Your task to perform on an android device: turn on location history Image 0: 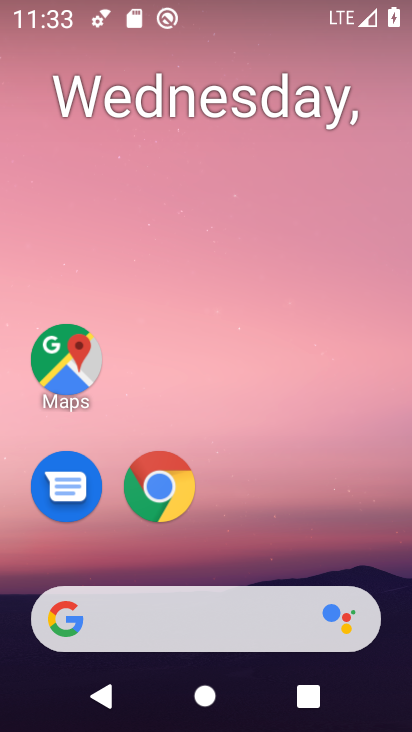
Step 0: drag from (346, 531) to (342, 136)
Your task to perform on an android device: turn on location history Image 1: 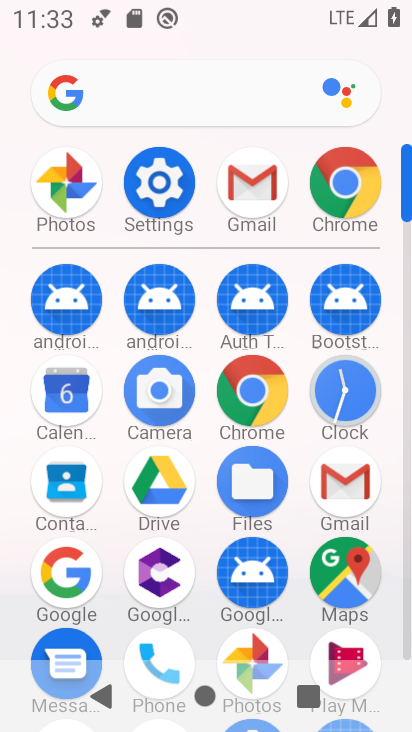
Step 1: click (173, 199)
Your task to perform on an android device: turn on location history Image 2: 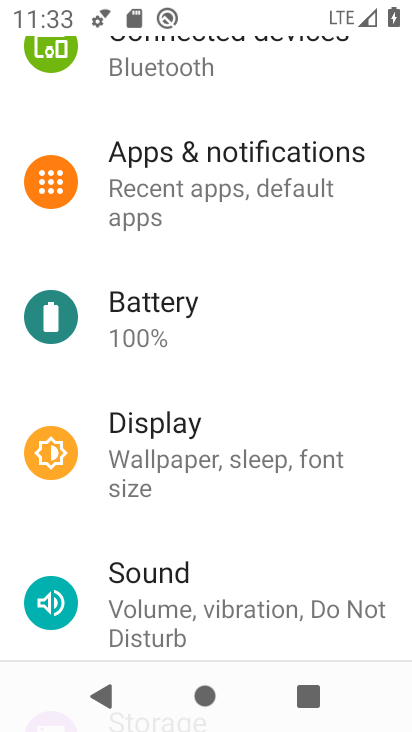
Step 2: drag from (322, 394) to (333, 278)
Your task to perform on an android device: turn on location history Image 3: 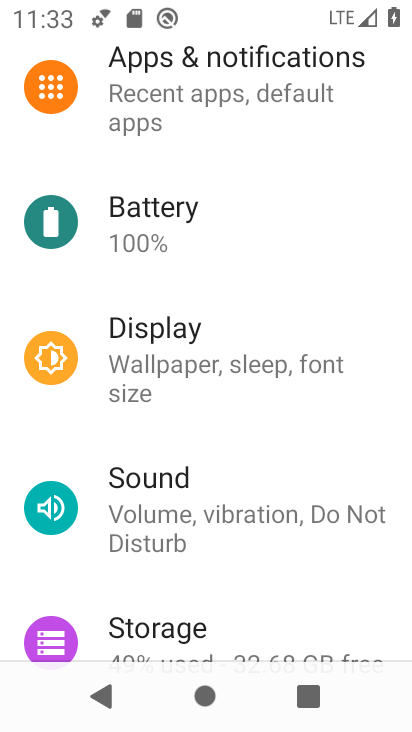
Step 3: drag from (361, 425) to (358, 285)
Your task to perform on an android device: turn on location history Image 4: 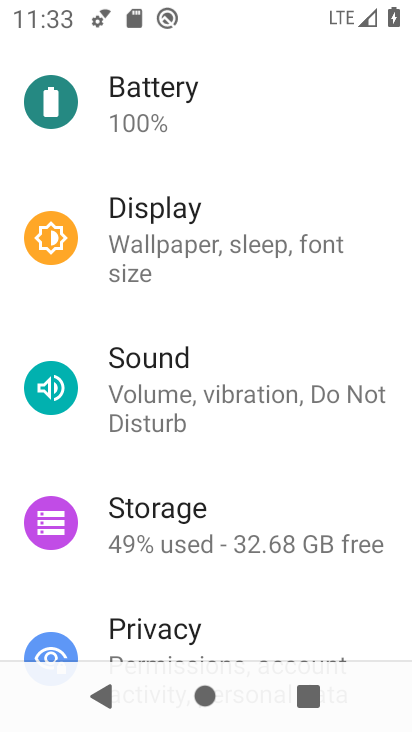
Step 4: drag from (377, 488) to (368, 350)
Your task to perform on an android device: turn on location history Image 5: 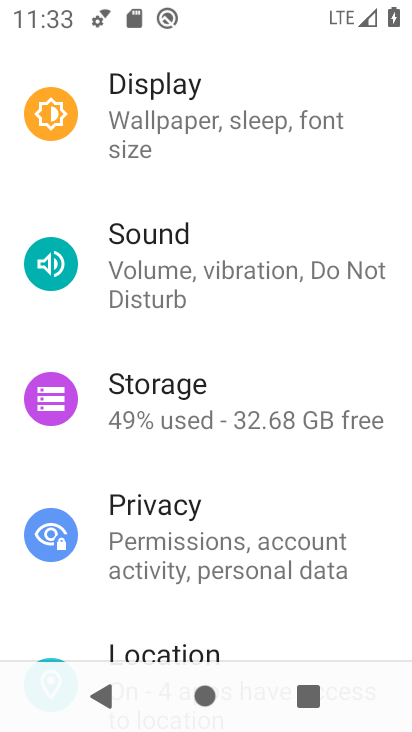
Step 5: drag from (364, 496) to (347, 376)
Your task to perform on an android device: turn on location history Image 6: 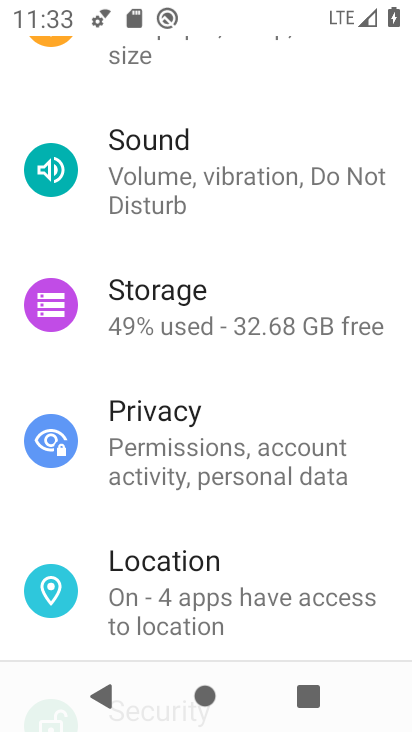
Step 6: drag from (348, 529) to (348, 390)
Your task to perform on an android device: turn on location history Image 7: 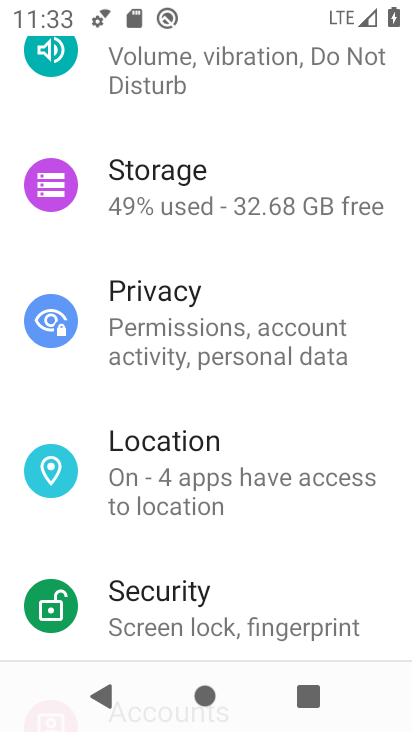
Step 7: drag from (349, 569) to (337, 428)
Your task to perform on an android device: turn on location history Image 8: 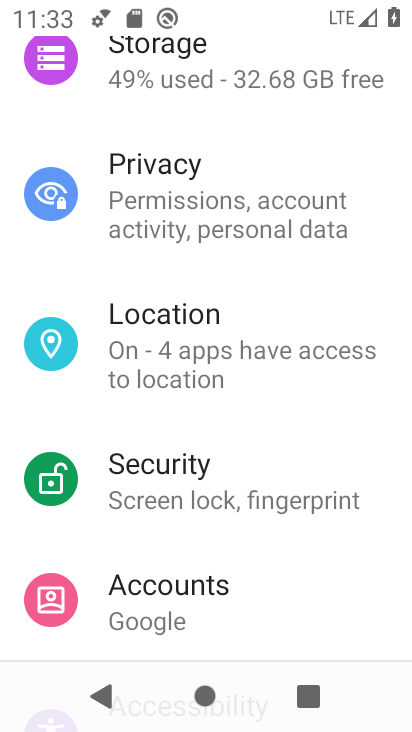
Step 8: click (270, 373)
Your task to perform on an android device: turn on location history Image 9: 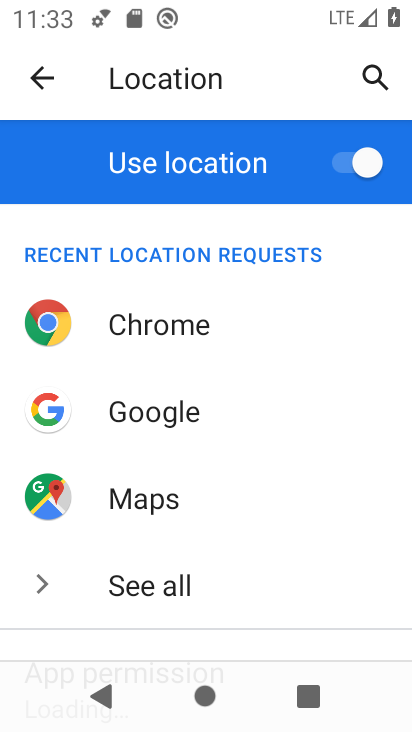
Step 9: drag from (311, 448) to (319, 338)
Your task to perform on an android device: turn on location history Image 10: 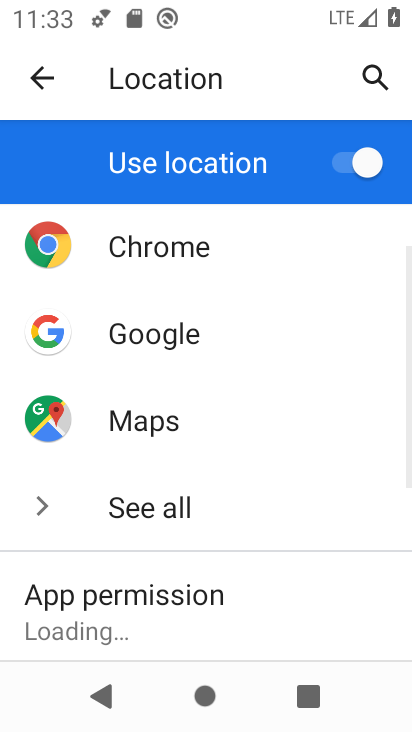
Step 10: drag from (304, 435) to (307, 333)
Your task to perform on an android device: turn on location history Image 11: 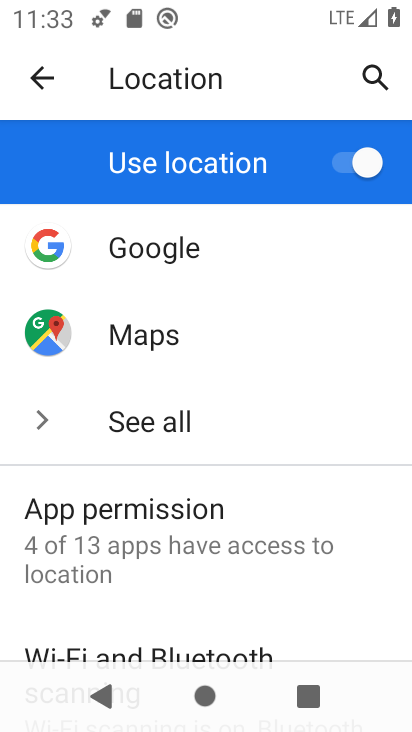
Step 11: drag from (299, 406) to (297, 341)
Your task to perform on an android device: turn on location history Image 12: 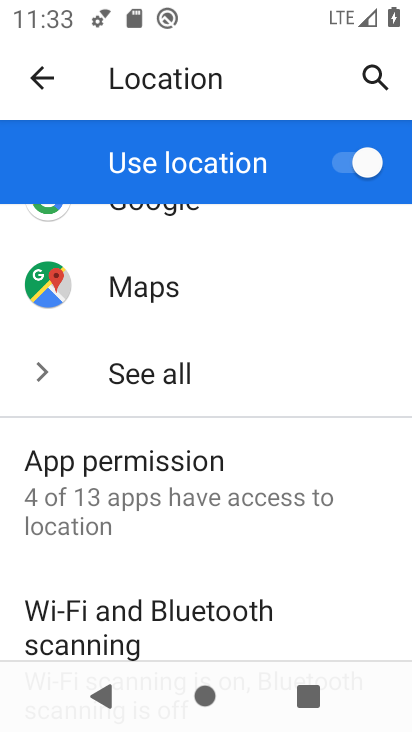
Step 12: drag from (304, 432) to (312, 354)
Your task to perform on an android device: turn on location history Image 13: 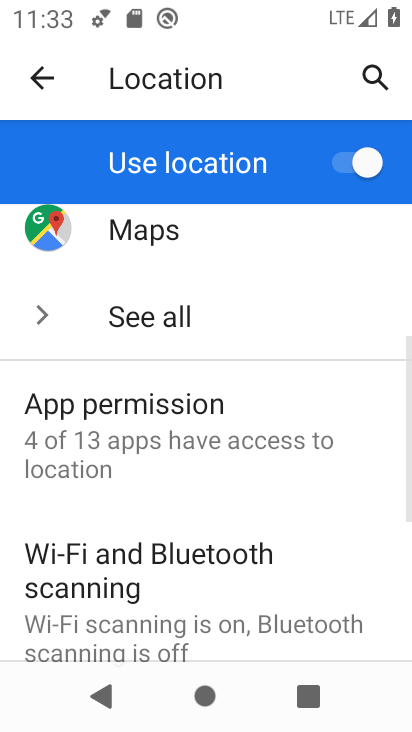
Step 13: drag from (307, 486) to (303, 401)
Your task to perform on an android device: turn on location history Image 14: 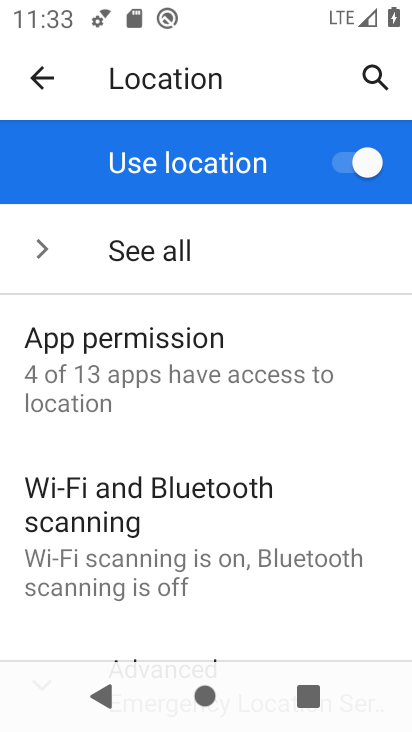
Step 14: drag from (306, 494) to (322, 387)
Your task to perform on an android device: turn on location history Image 15: 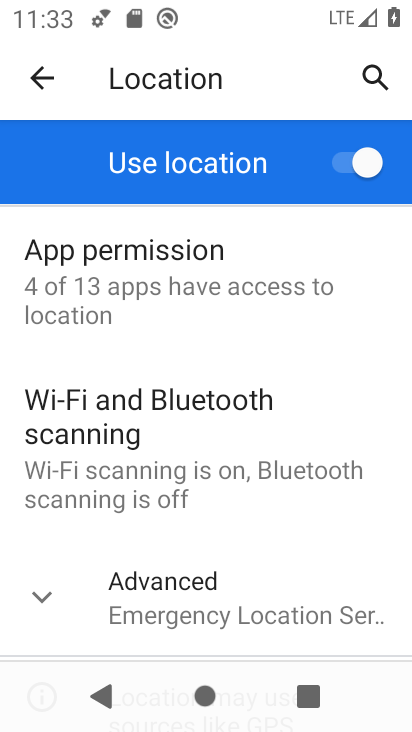
Step 15: drag from (297, 522) to (287, 380)
Your task to perform on an android device: turn on location history Image 16: 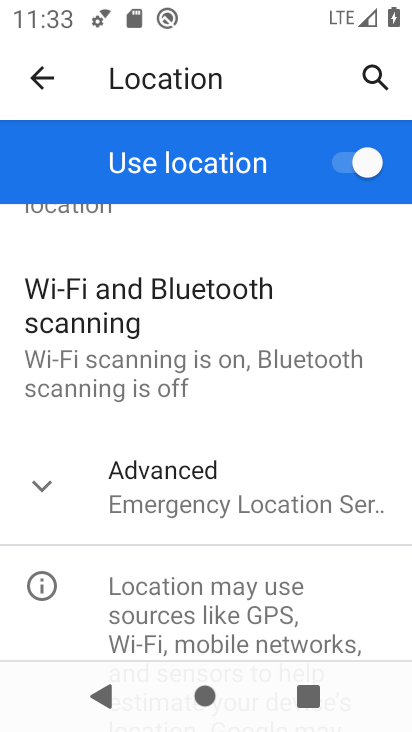
Step 16: click (230, 498)
Your task to perform on an android device: turn on location history Image 17: 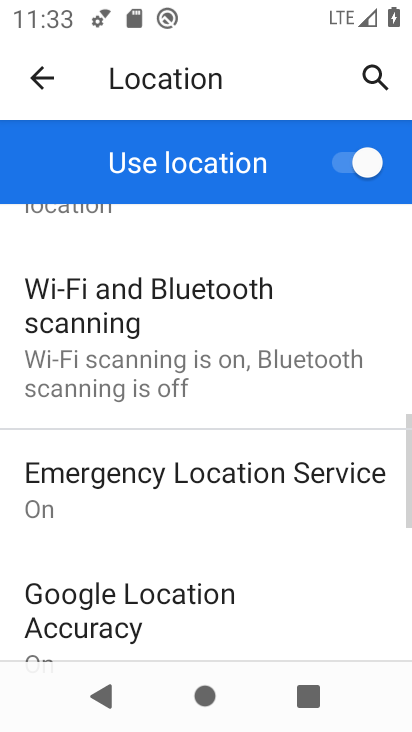
Step 17: drag from (300, 538) to (300, 416)
Your task to perform on an android device: turn on location history Image 18: 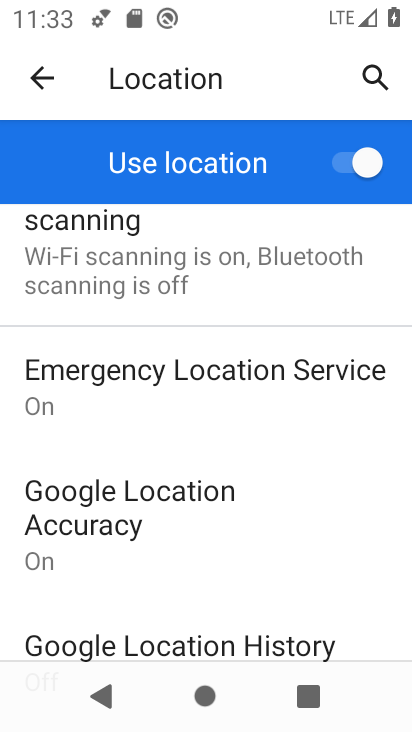
Step 18: drag from (292, 538) to (287, 376)
Your task to perform on an android device: turn on location history Image 19: 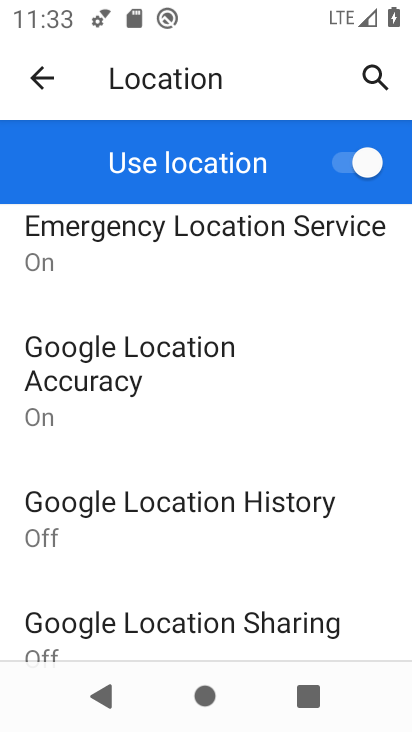
Step 19: drag from (270, 536) to (284, 356)
Your task to perform on an android device: turn on location history Image 20: 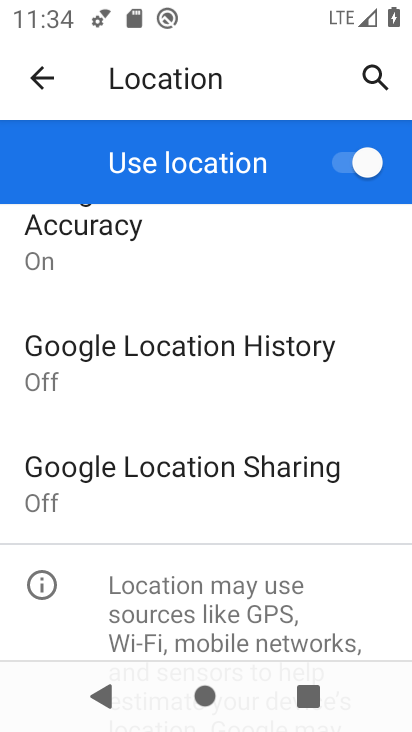
Step 20: click (247, 505)
Your task to perform on an android device: turn on location history Image 21: 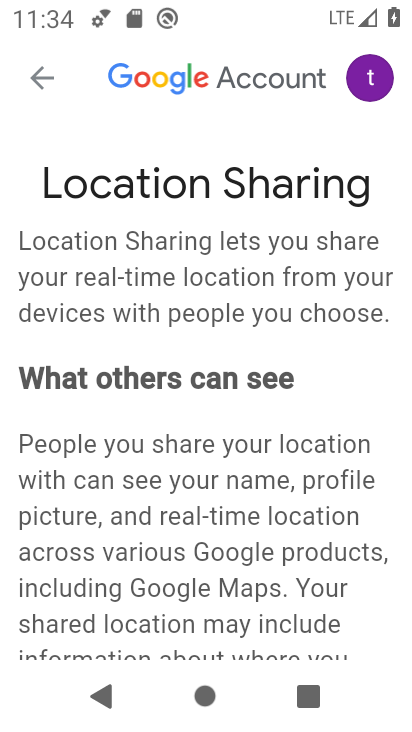
Step 21: task complete